Your task to perform on an android device: What's on my calendar today? Image 0: 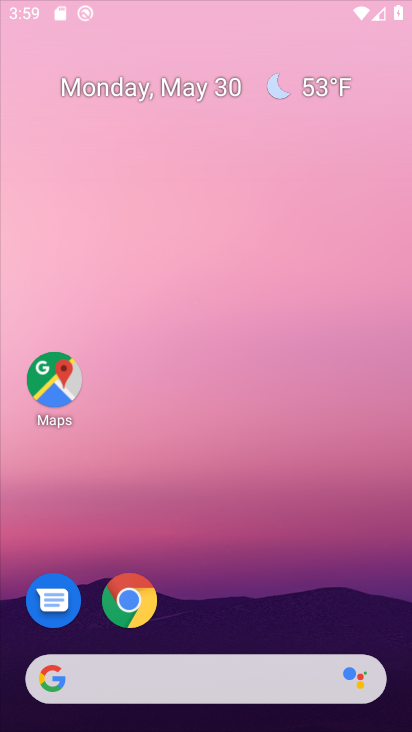
Step 0: drag from (354, 576) to (360, 21)
Your task to perform on an android device: What's on my calendar today? Image 1: 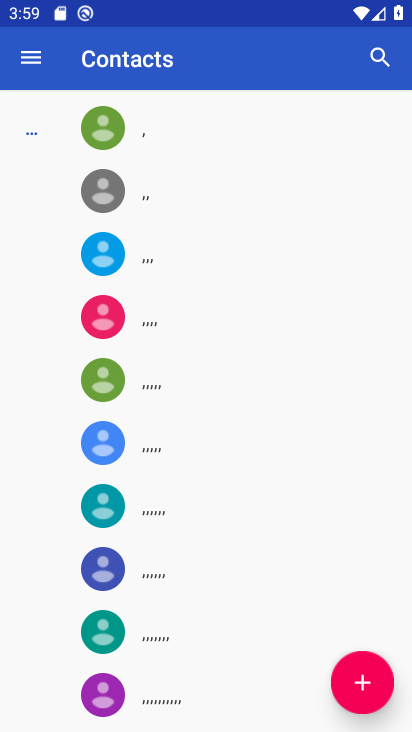
Step 1: press home button
Your task to perform on an android device: What's on my calendar today? Image 2: 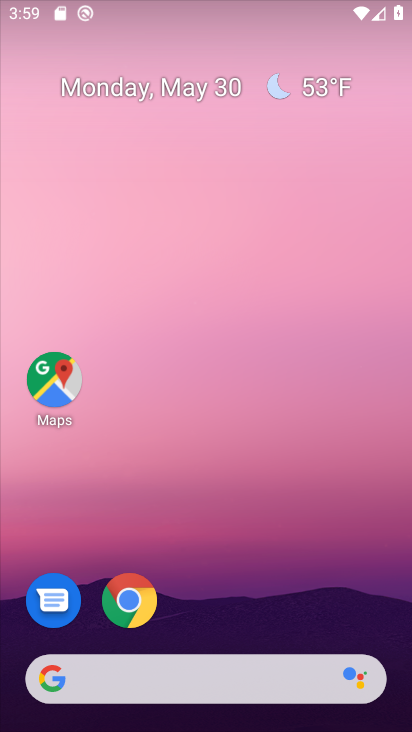
Step 2: drag from (332, 599) to (334, 3)
Your task to perform on an android device: What's on my calendar today? Image 3: 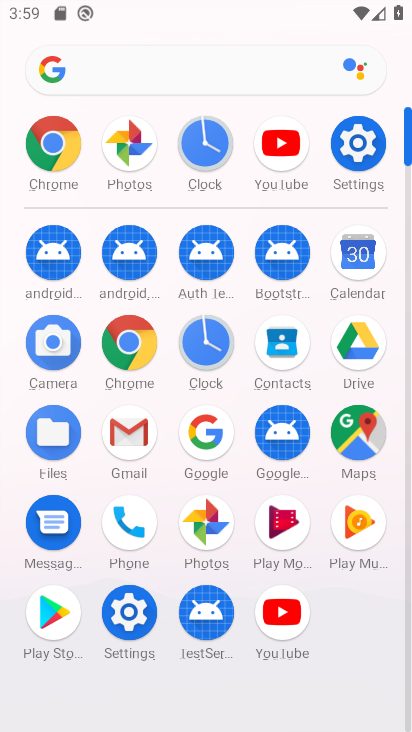
Step 3: click (358, 255)
Your task to perform on an android device: What's on my calendar today? Image 4: 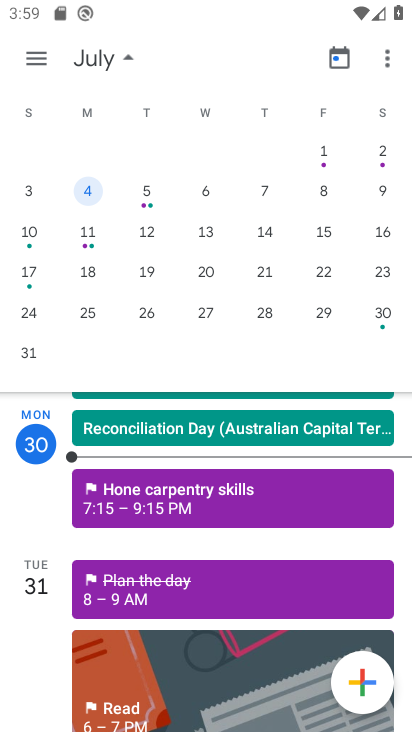
Step 4: task complete